Your task to perform on an android device: Go to network settings Image 0: 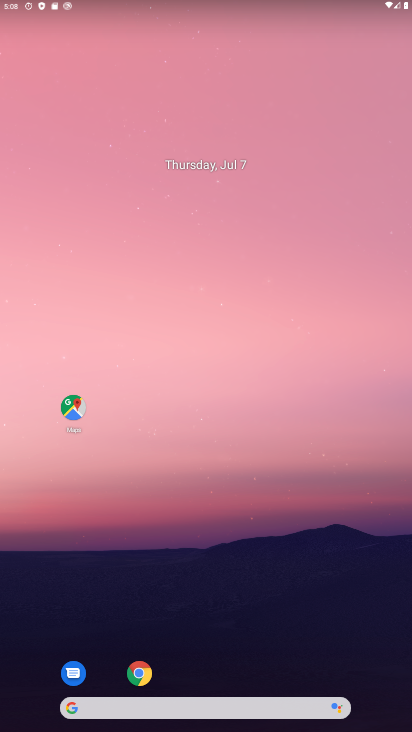
Step 0: drag from (239, 699) to (205, 43)
Your task to perform on an android device: Go to network settings Image 1: 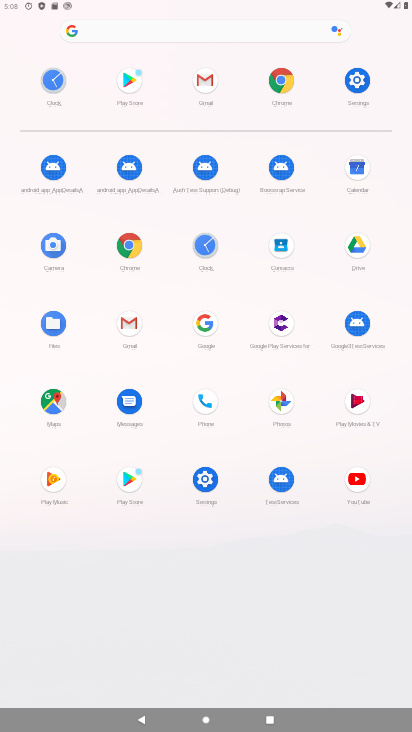
Step 1: click (363, 78)
Your task to perform on an android device: Go to network settings Image 2: 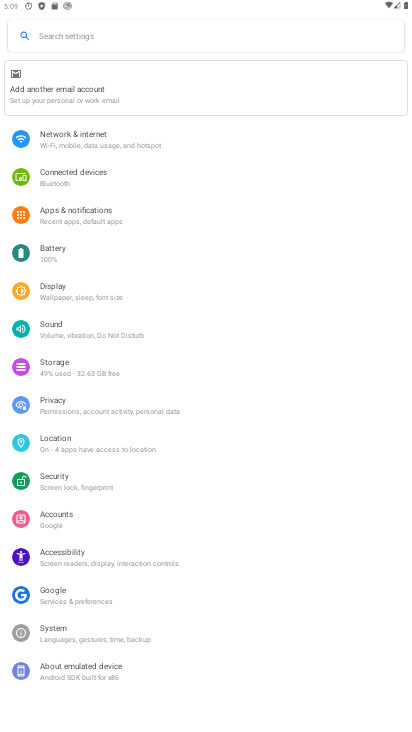
Step 2: click (93, 143)
Your task to perform on an android device: Go to network settings Image 3: 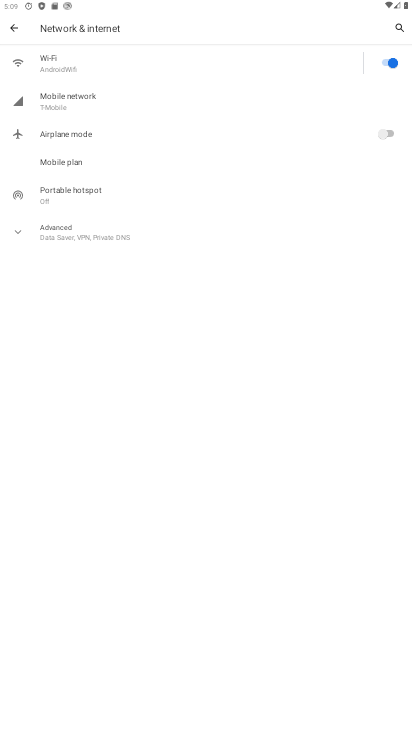
Step 3: task complete